Your task to perform on an android device: Go to Google maps Image 0: 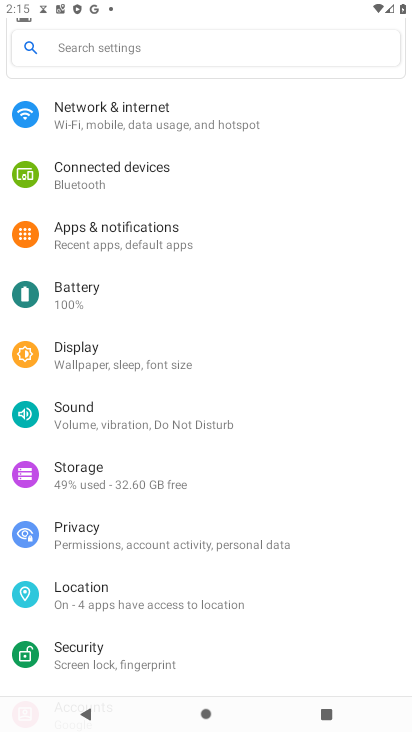
Step 0: press home button
Your task to perform on an android device: Go to Google maps Image 1: 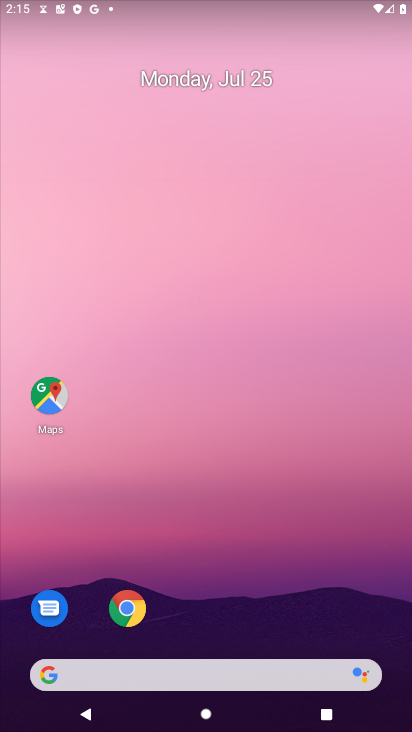
Step 1: click (51, 397)
Your task to perform on an android device: Go to Google maps Image 2: 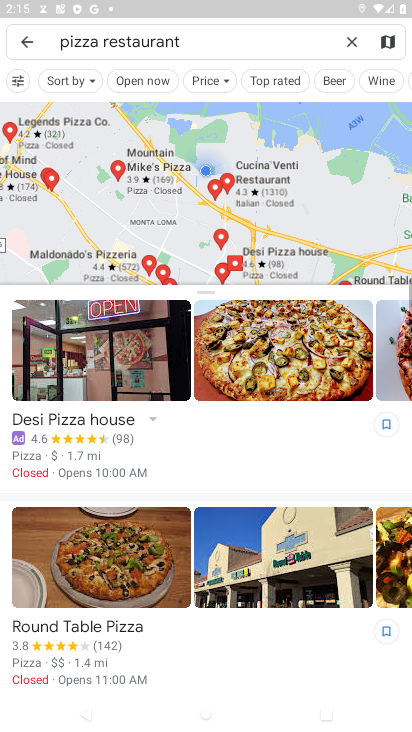
Step 2: click (353, 44)
Your task to perform on an android device: Go to Google maps Image 3: 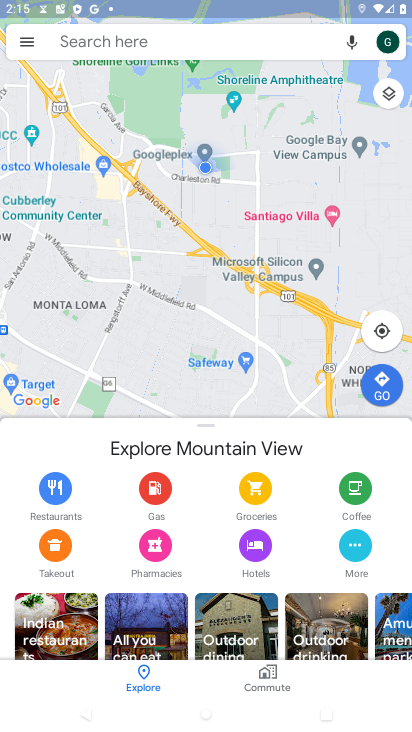
Step 3: task complete